Your task to perform on an android device: check out phone information Image 0: 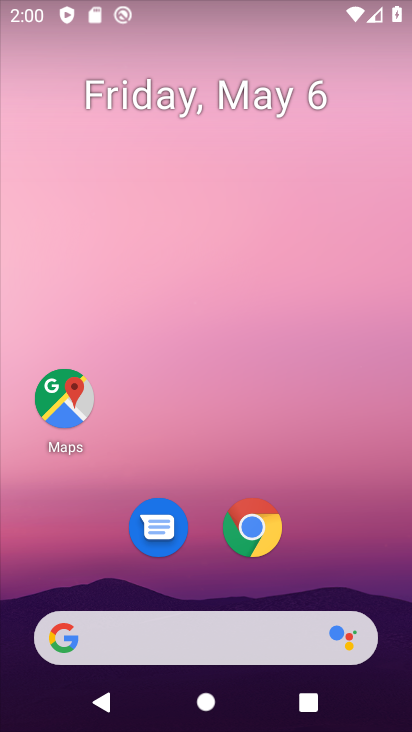
Step 0: drag from (342, 564) to (335, 129)
Your task to perform on an android device: check out phone information Image 1: 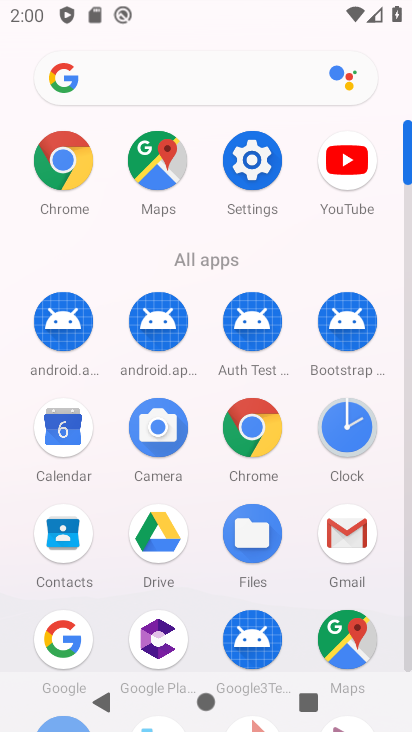
Step 1: drag from (278, 252) to (310, 56)
Your task to perform on an android device: check out phone information Image 2: 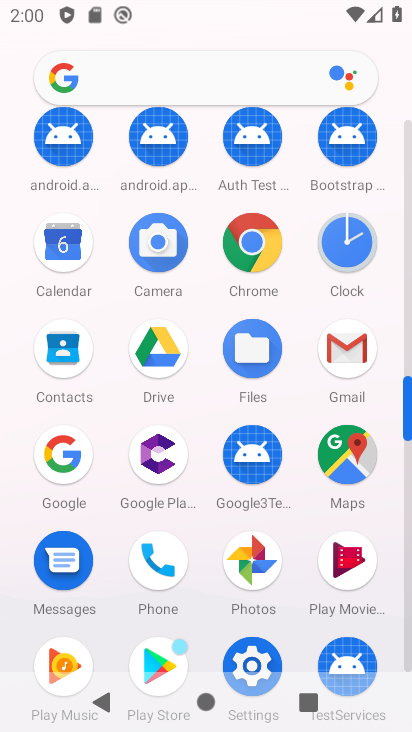
Step 2: click (156, 567)
Your task to perform on an android device: check out phone information Image 3: 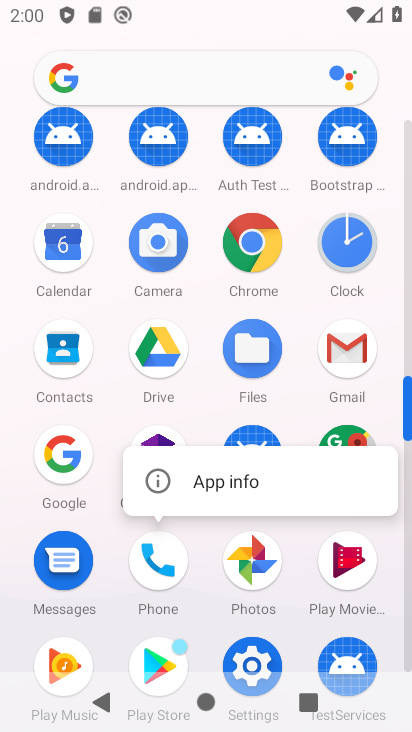
Step 3: click (203, 480)
Your task to perform on an android device: check out phone information Image 4: 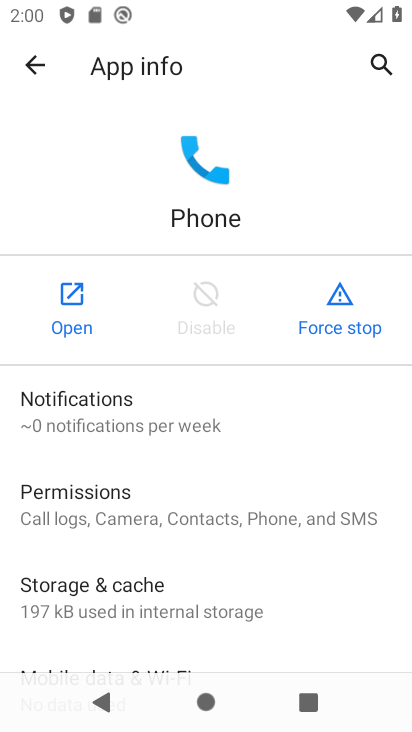
Step 4: task complete